Your task to perform on an android device: change notifications settings Image 0: 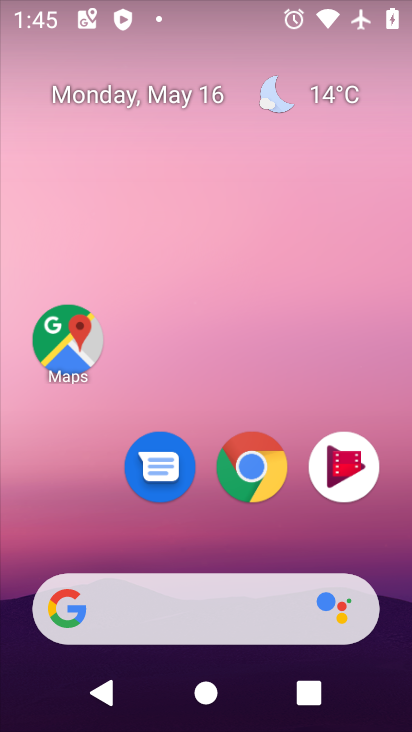
Step 0: drag from (160, 434) to (253, 178)
Your task to perform on an android device: change notifications settings Image 1: 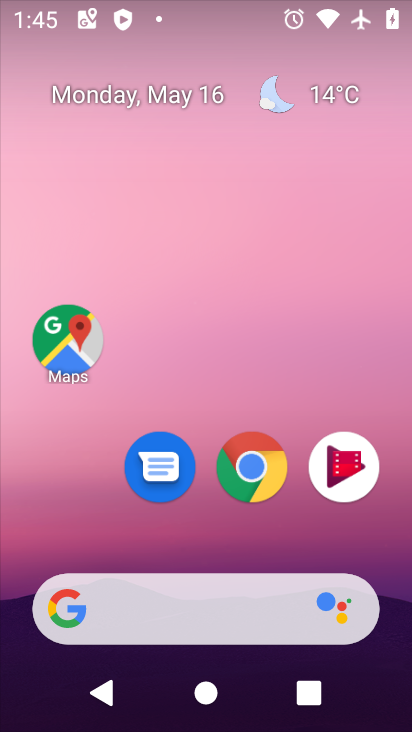
Step 1: drag from (129, 554) to (222, 206)
Your task to perform on an android device: change notifications settings Image 2: 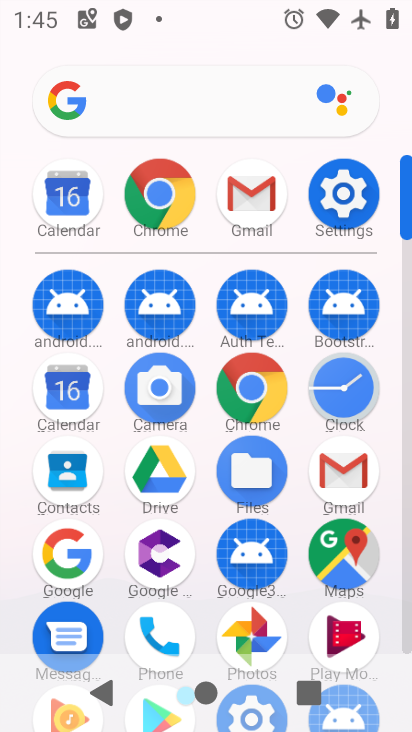
Step 2: click (337, 184)
Your task to perform on an android device: change notifications settings Image 3: 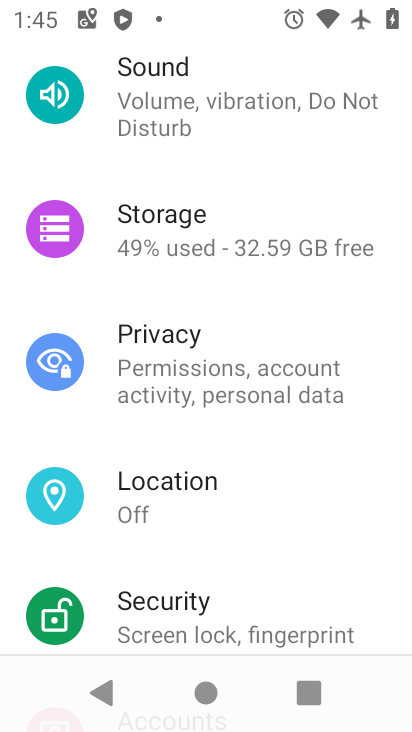
Step 3: drag from (204, 139) to (195, 565)
Your task to perform on an android device: change notifications settings Image 4: 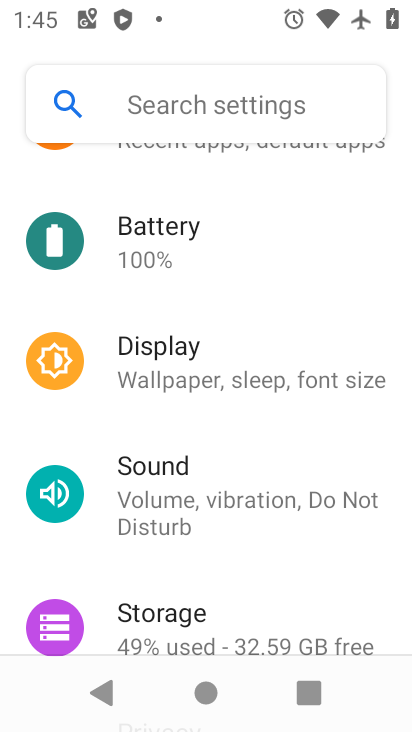
Step 4: drag from (231, 200) to (170, 618)
Your task to perform on an android device: change notifications settings Image 5: 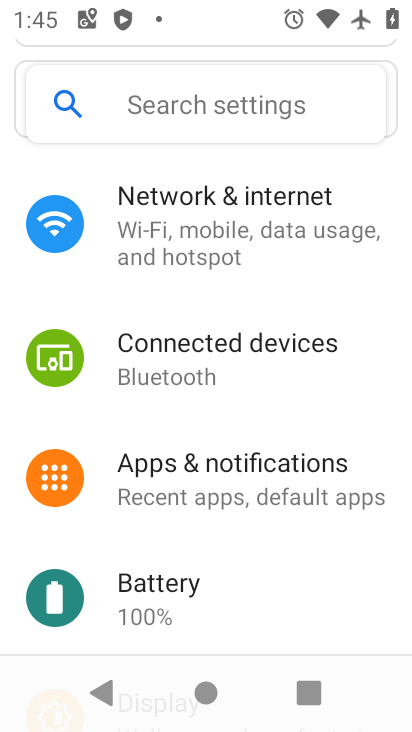
Step 5: click (209, 230)
Your task to perform on an android device: change notifications settings Image 6: 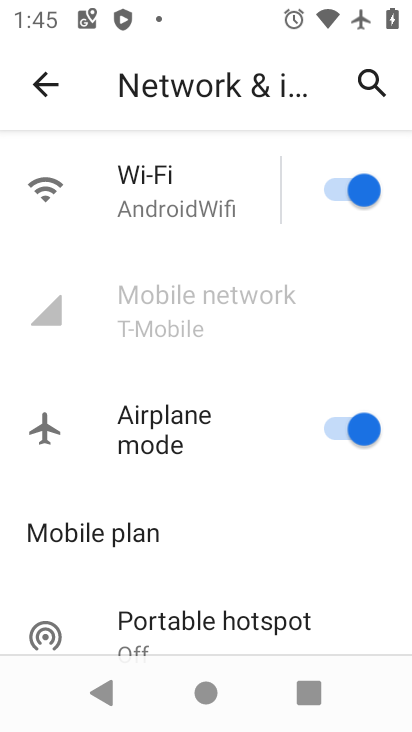
Step 6: drag from (208, 570) to (253, 273)
Your task to perform on an android device: change notifications settings Image 7: 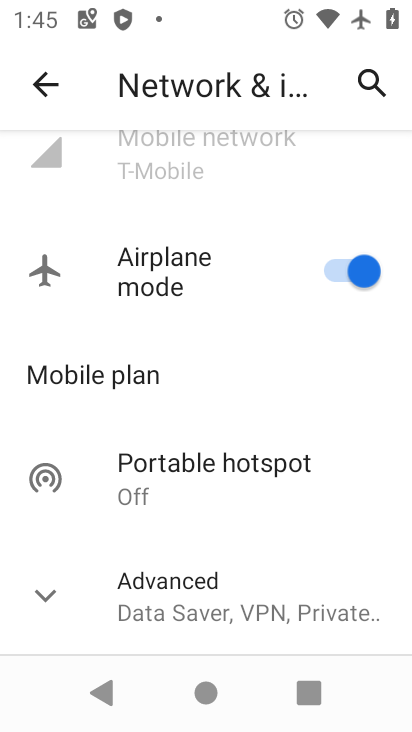
Step 7: click (46, 65)
Your task to perform on an android device: change notifications settings Image 8: 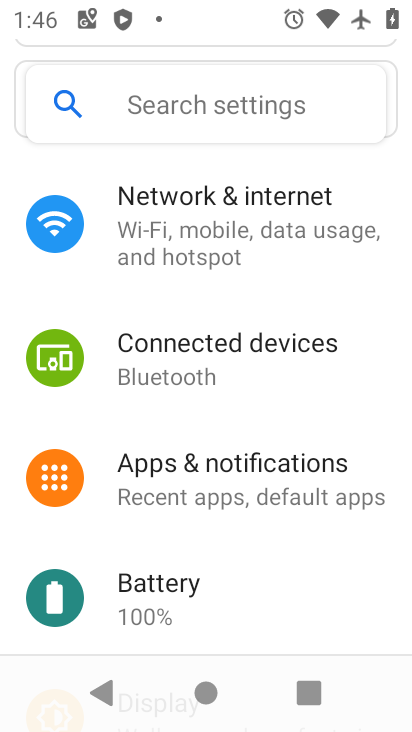
Step 8: click (184, 498)
Your task to perform on an android device: change notifications settings Image 9: 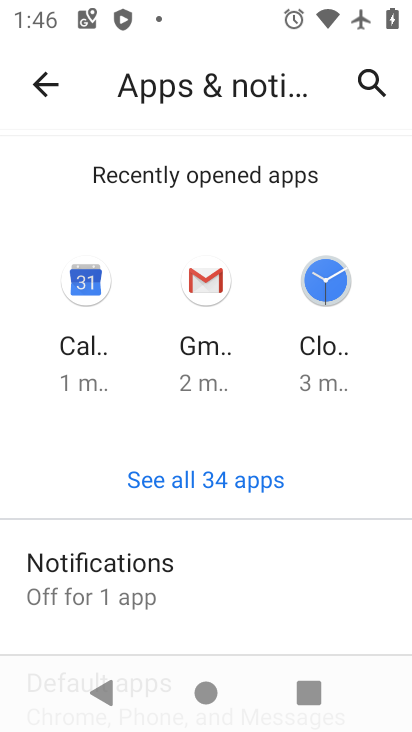
Step 9: drag from (172, 591) to (216, 272)
Your task to perform on an android device: change notifications settings Image 10: 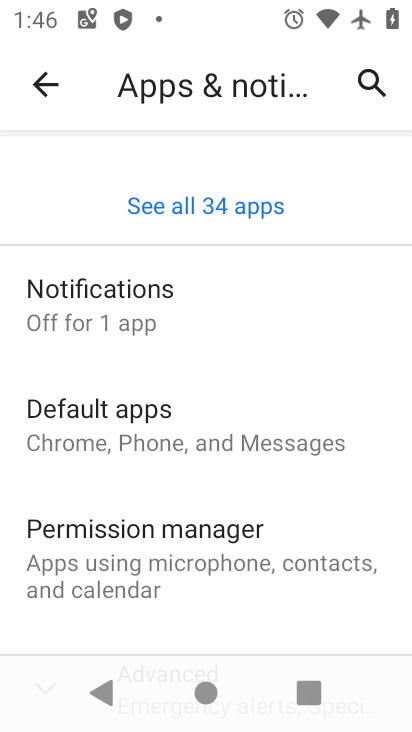
Step 10: click (140, 310)
Your task to perform on an android device: change notifications settings Image 11: 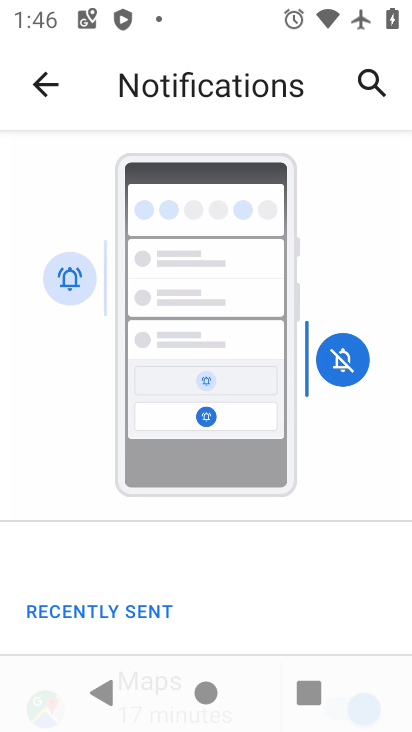
Step 11: drag from (160, 616) to (301, 147)
Your task to perform on an android device: change notifications settings Image 12: 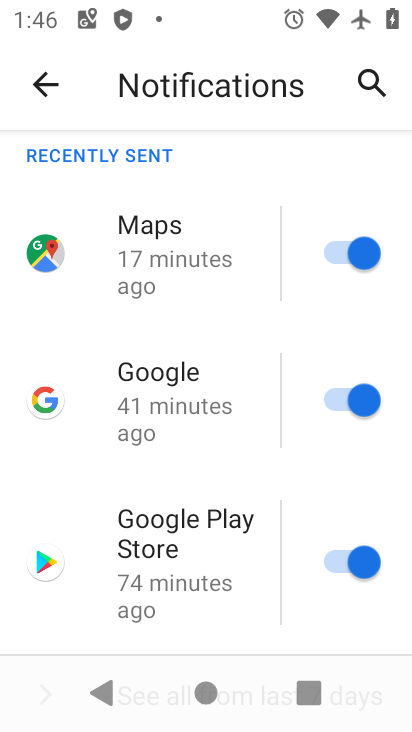
Step 12: click (351, 249)
Your task to perform on an android device: change notifications settings Image 13: 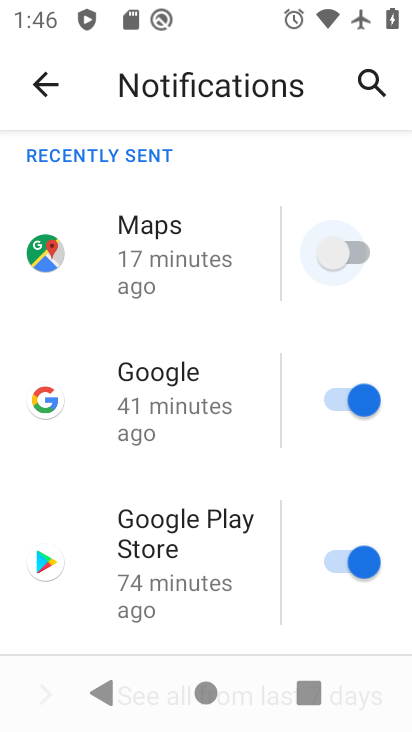
Step 13: click (300, 393)
Your task to perform on an android device: change notifications settings Image 14: 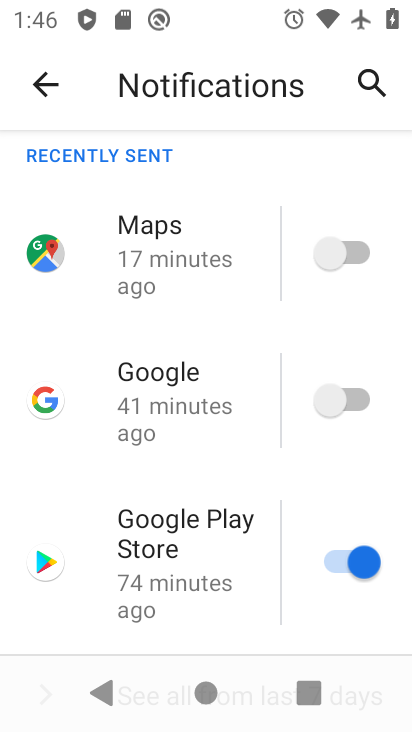
Step 14: click (337, 559)
Your task to perform on an android device: change notifications settings Image 15: 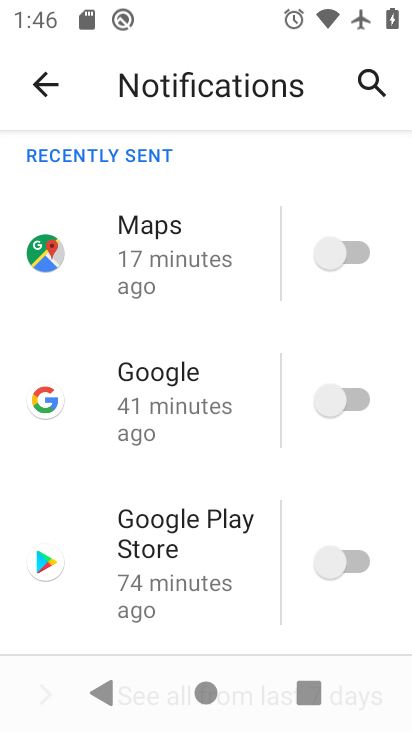
Step 15: drag from (154, 588) to (211, 253)
Your task to perform on an android device: change notifications settings Image 16: 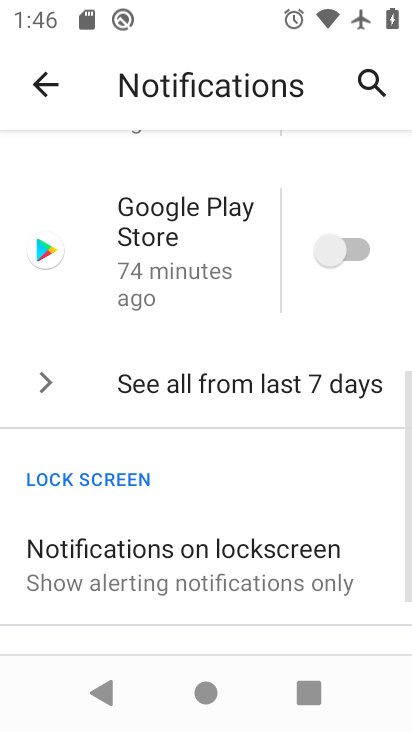
Step 16: click (195, 428)
Your task to perform on an android device: change notifications settings Image 17: 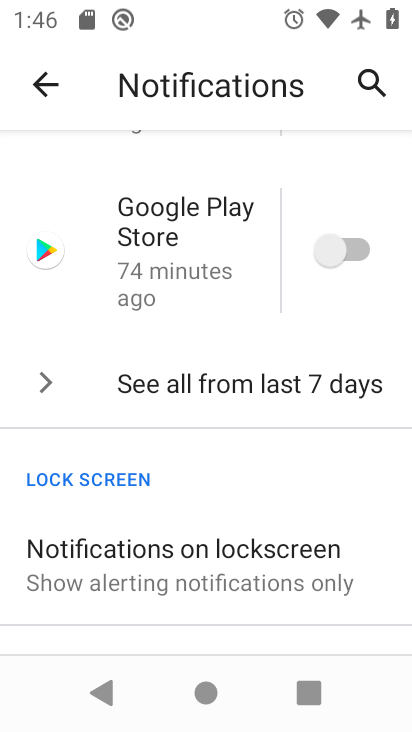
Step 17: click (197, 389)
Your task to perform on an android device: change notifications settings Image 18: 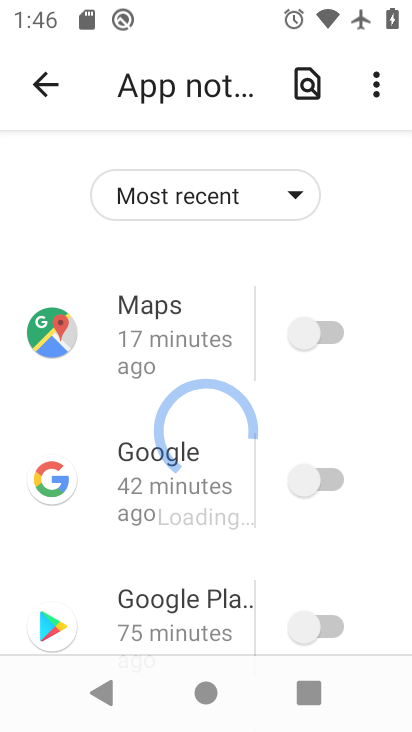
Step 18: drag from (226, 513) to (282, 206)
Your task to perform on an android device: change notifications settings Image 19: 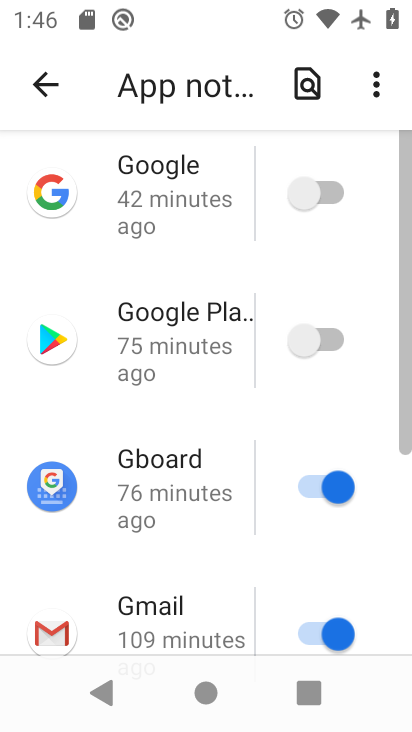
Step 19: drag from (150, 593) to (226, 249)
Your task to perform on an android device: change notifications settings Image 20: 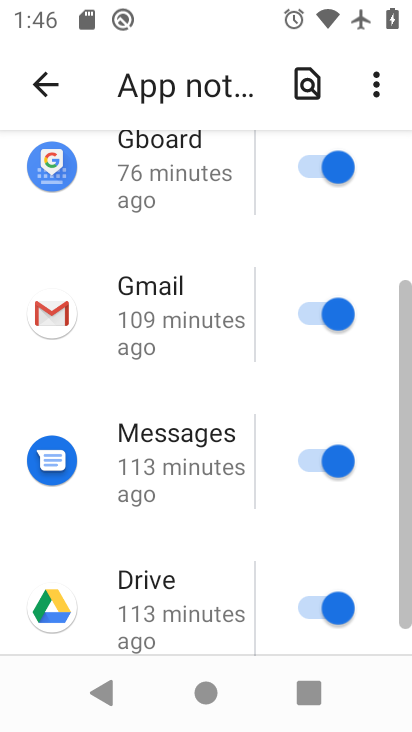
Step 20: click (317, 148)
Your task to perform on an android device: change notifications settings Image 21: 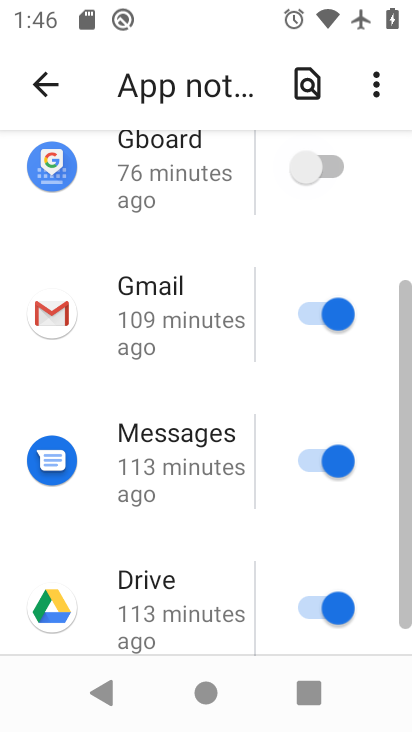
Step 21: click (300, 308)
Your task to perform on an android device: change notifications settings Image 22: 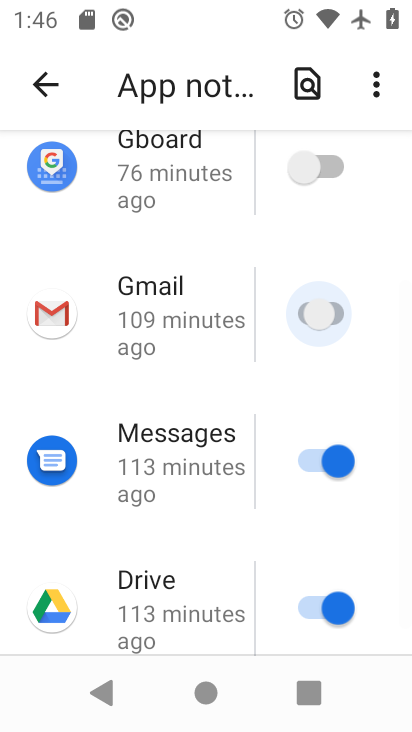
Step 22: click (305, 468)
Your task to perform on an android device: change notifications settings Image 23: 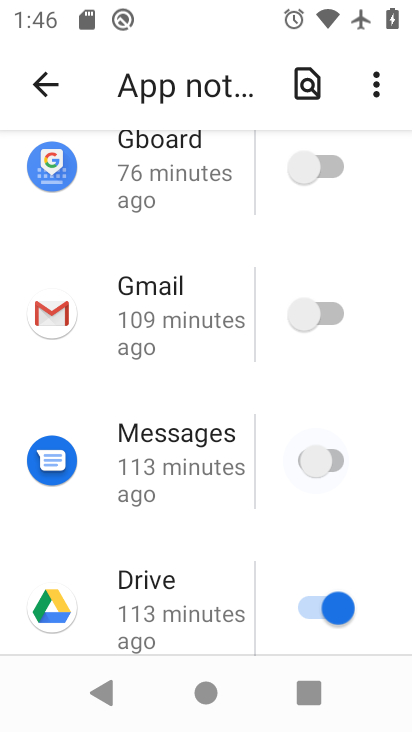
Step 23: click (316, 607)
Your task to perform on an android device: change notifications settings Image 24: 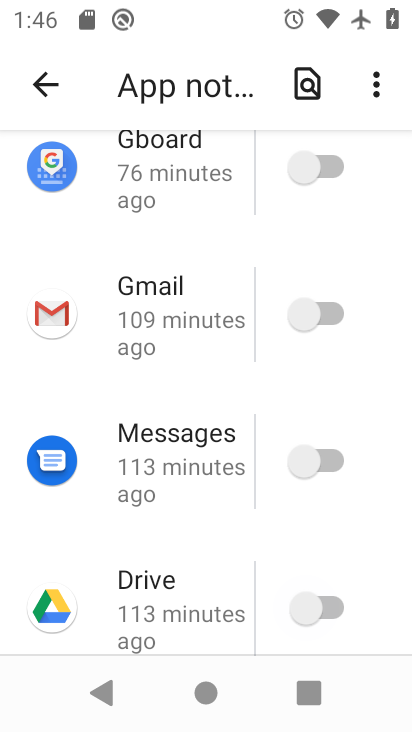
Step 24: drag from (220, 583) to (191, 157)
Your task to perform on an android device: change notifications settings Image 25: 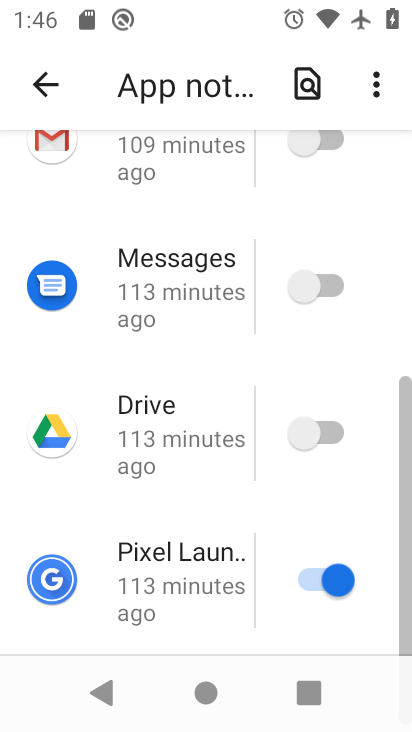
Step 25: click (307, 562)
Your task to perform on an android device: change notifications settings Image 26: 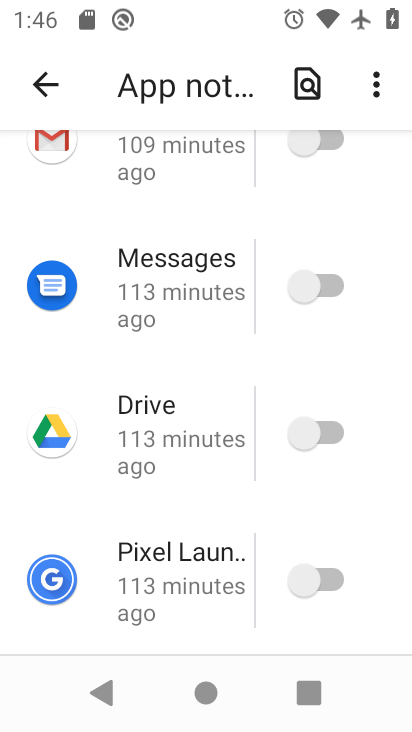
Step 26: task complete